Your task to perform on an android device: open chrome privacy settings Image 0: 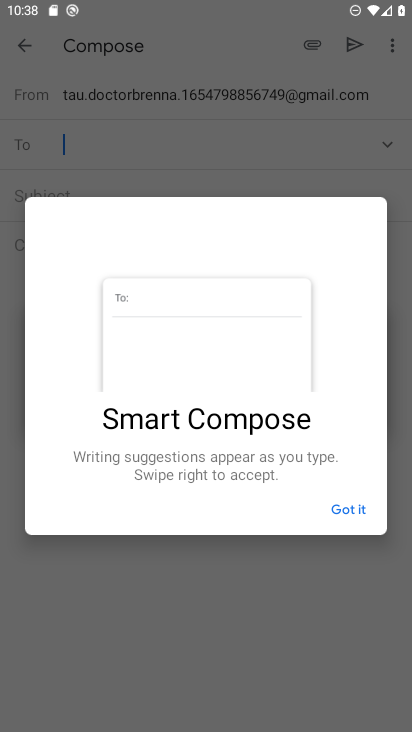
Step 0: press home button
Your task to perform on an android device: open chrome privacy settings Image 1: 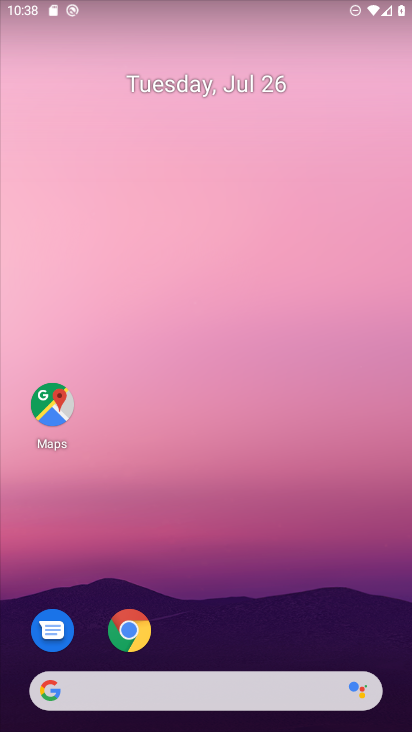
Step 1: click (128, 630)
Your task to perform on an android device: open chrome privacy settings Image 2: 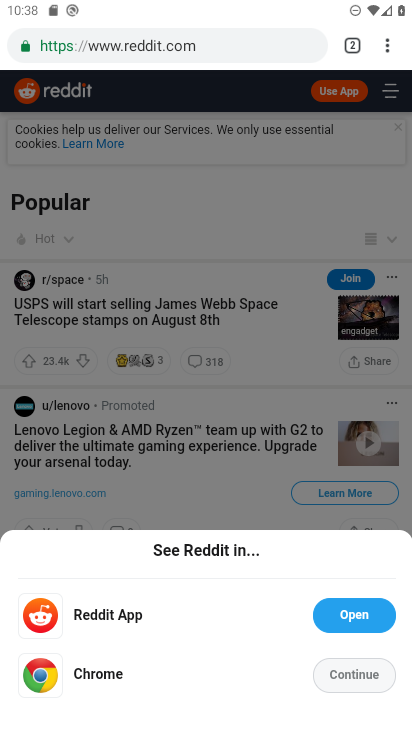
Step 2: click (387, 50)
Your task to perform on an android device: open chrome privacy settings Image 3: 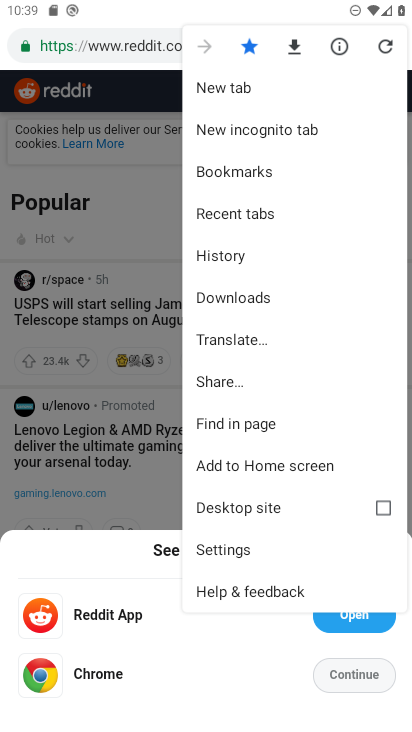
Step 3: click (225, 545)
Your task to perform on an android device: open chrome privacy settings Image 4: 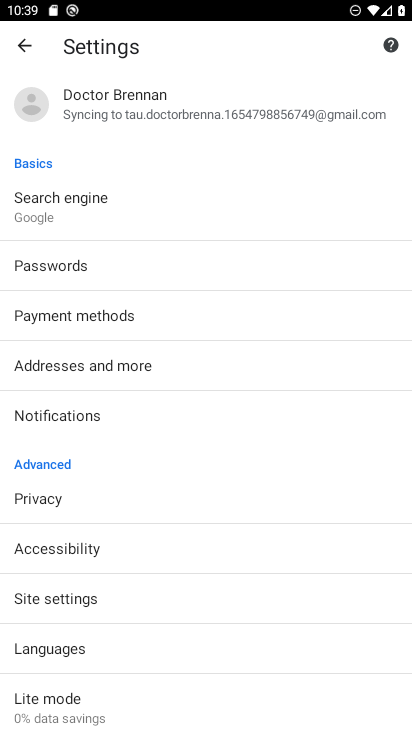
Step 4: click (38, 499)
Your task to perform on an android device: open chrome privacy settings Image 5: 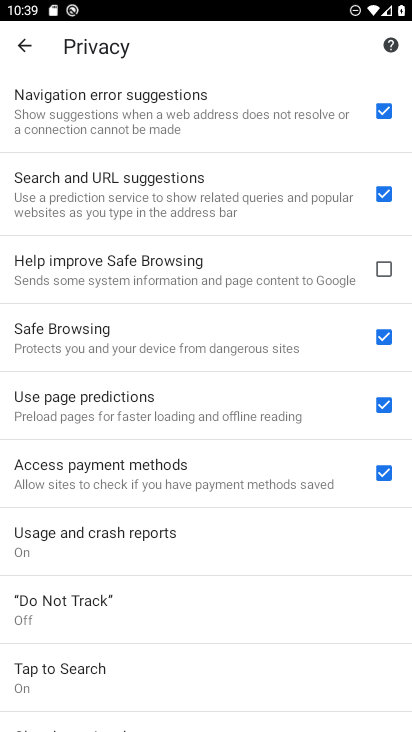
Step 5: task complete